Your task to perform on an android device: Open notification settings Image 0: 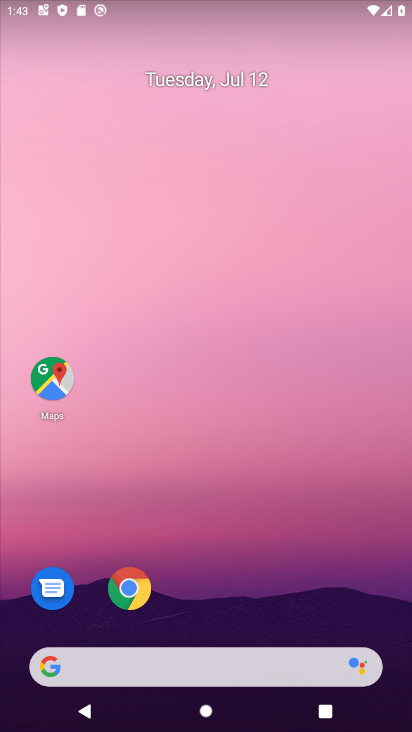
Step 0: drag from (217, 458) to (233, 217)
Your task to perform on an android device: Open notification settings Image 1: 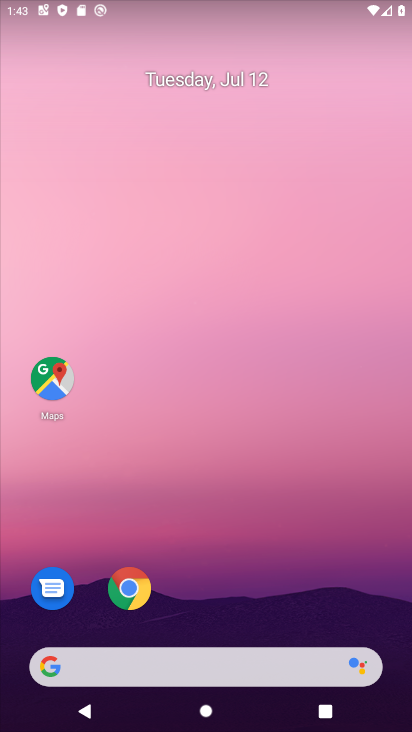
Step 1: drag from (207, 607) to (214, 35)
Your task to perform on an android device: Open notification settings Image 2: 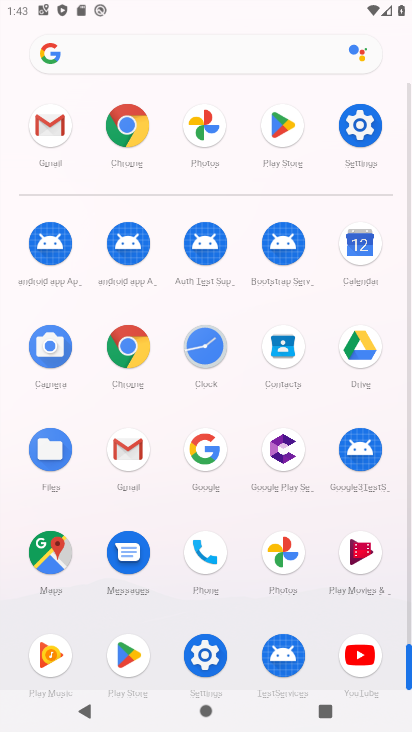
Step 2: click (210, 648)
Your task to perform on an android device: Open notification settings Image 3: 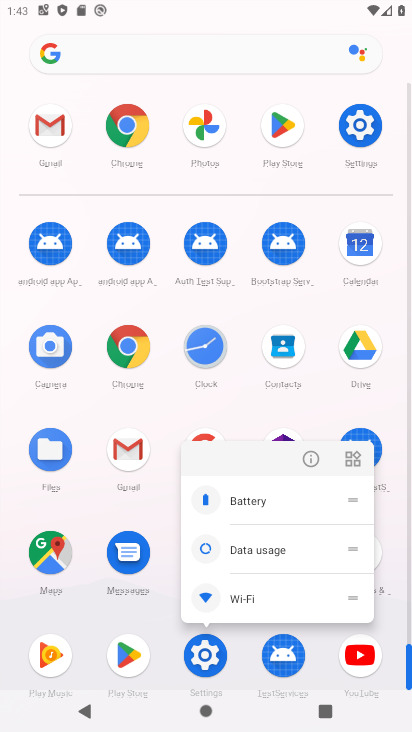
Step 3: click (314, 461)
Your task to perform on an android device: Open notification settings Image 4: 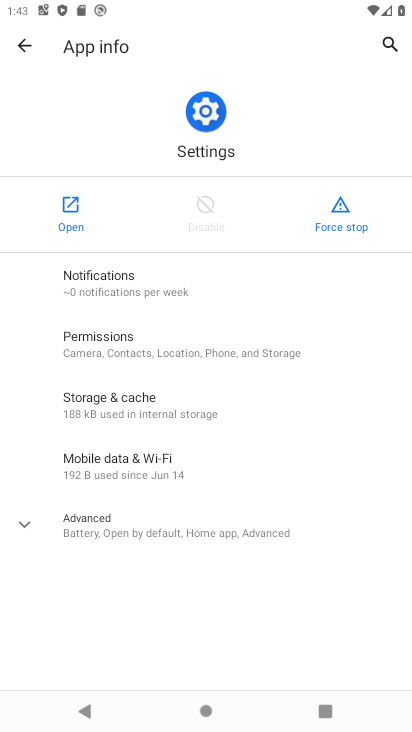
Step 4: click (53, 217)
Your task to perform on an android device: Open notification settings Image 5: 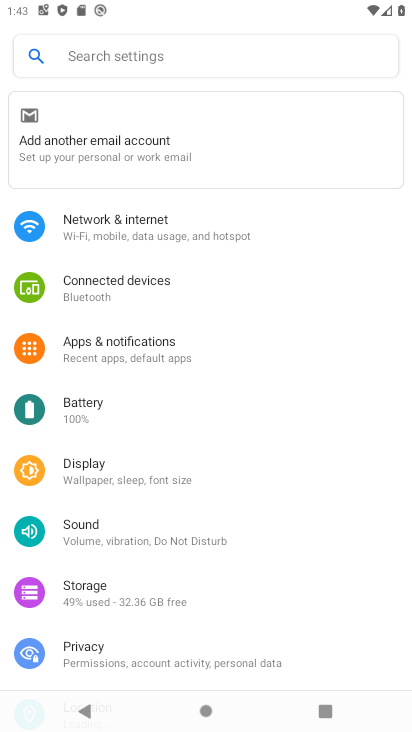
Step 5: drag from (168, 254) to (239, 63)
Your task to perform on an android device: Open notification settings Image 6: 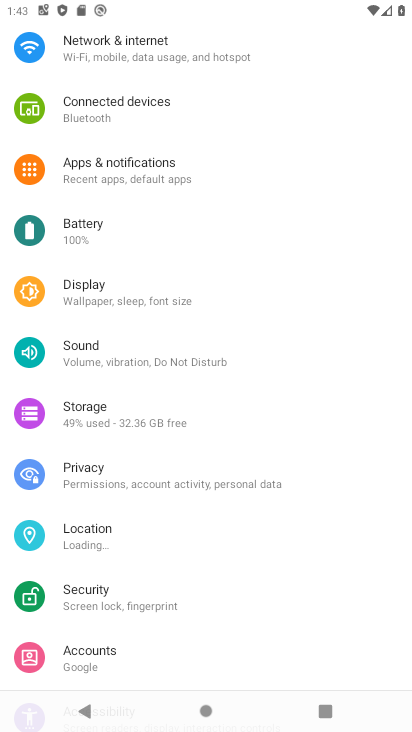
Step 6: click (153, 168)
Your task to perform on an android device: Open notification settings Image 7: 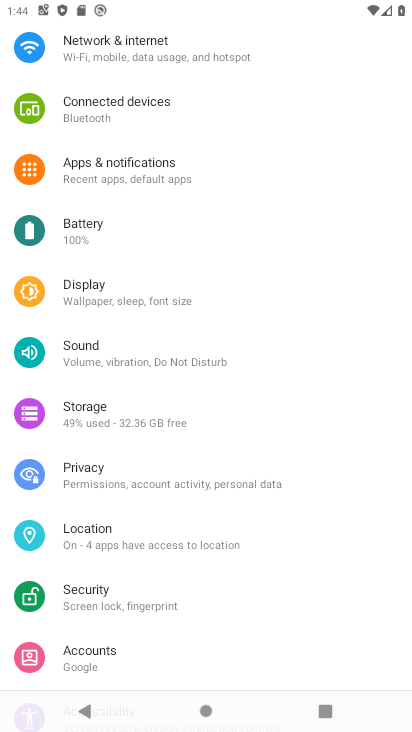
Step 7: drag from (202, 589) to (311, 97)
Your task to perform on an android device: Open notification settings Image 8: 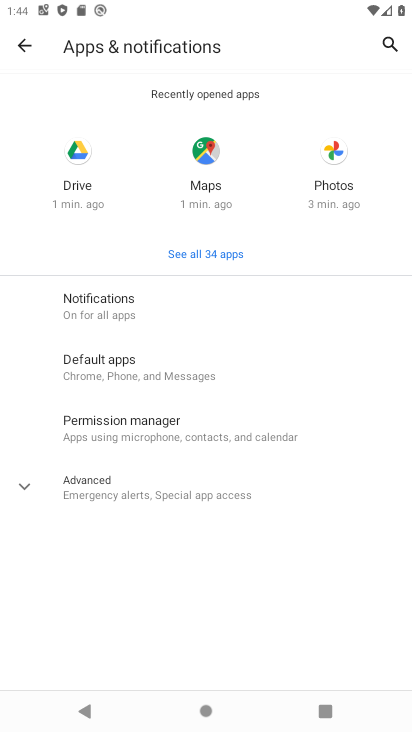
Step 8: click (136, 319)
Your task to perform on an android device: Open notification settings Image 9: 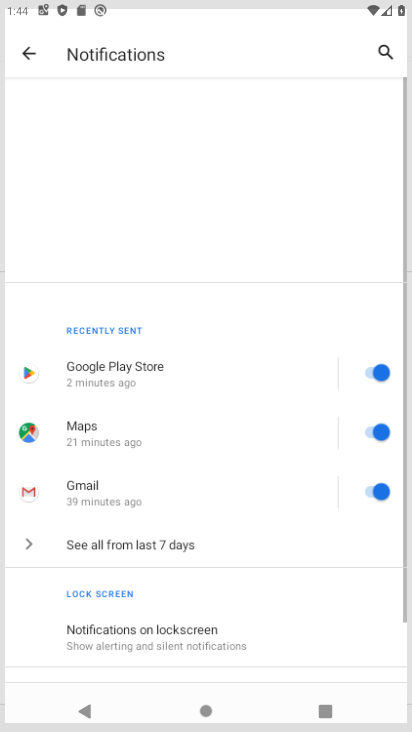
Step 9: task complete